Your task to perform on an android device: Open ESPN.com Image 0: 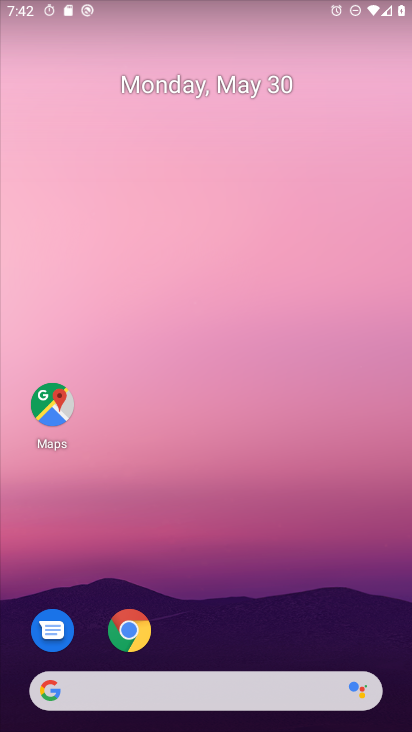
Step 0: drag from (307, 635) to (180, 60)
Your task to perform on an android device: Open ESPN.com Image 1: 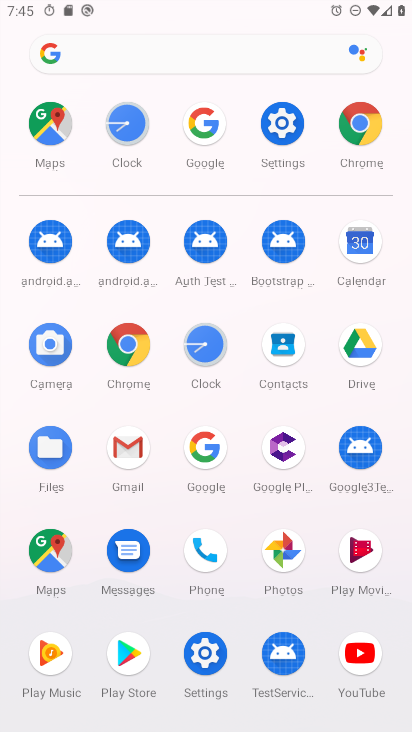
Step 1: click (208, 442)
Your task to perform on an android device: Open ESPN.com Image 2: 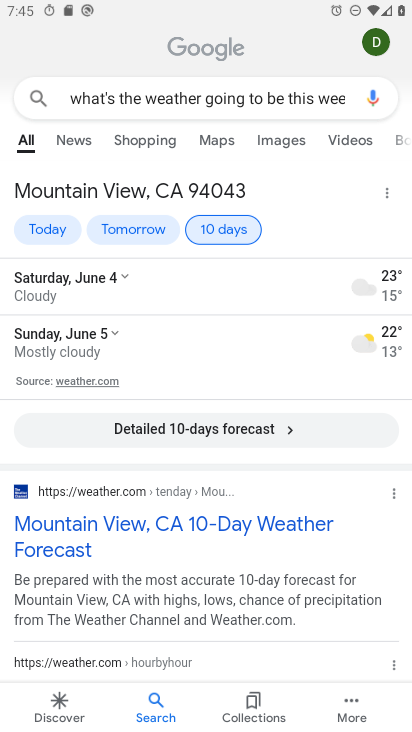
Step 2: press back button
Your task to perform on an android device: Open ESPN.com Image 3: 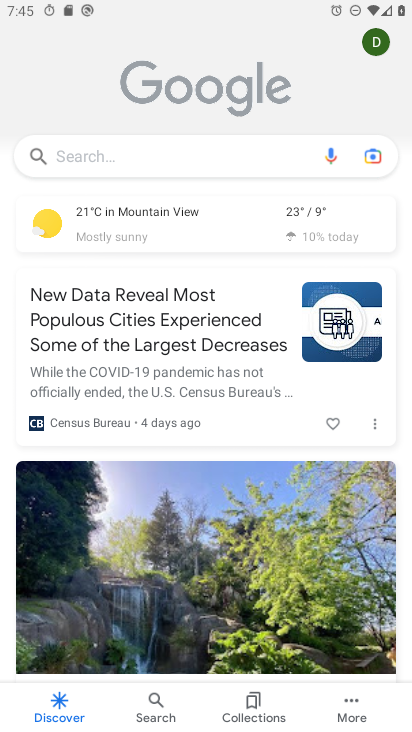
Step 3: click (188, 163)
Your task to perform on an android device: Open ESPN.com Image 4: 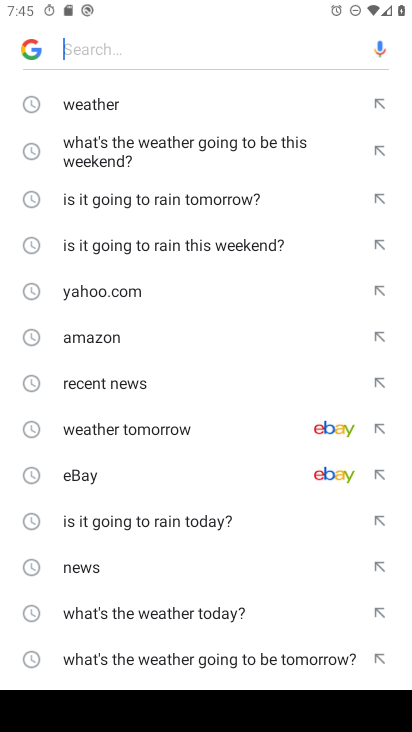
Step 4: drag from (127, 522) to (181, 102)
Your task to perform on an android device: Open ESPN.com Image 5: 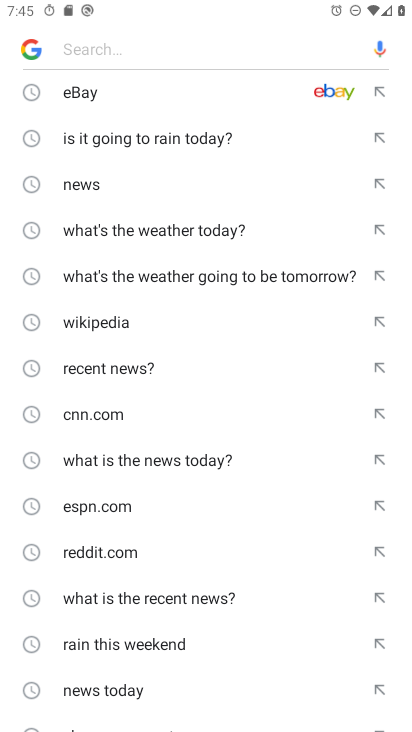
Step 5: click (124, 503)
Your task to perform on an android device: Open ESPN.com Image 6: 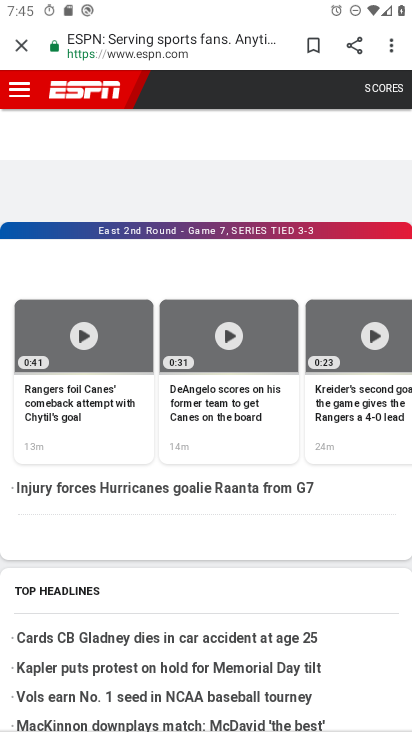
Step 6: task complete